Your task to perform on an android device: find snoozed emails in the gmail app Image 0: 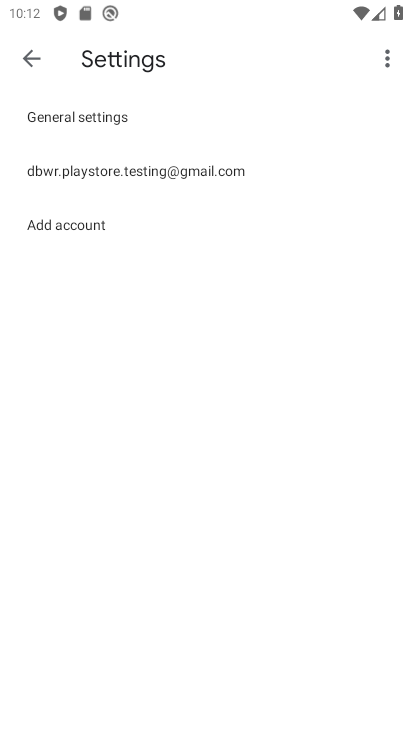
Step 0: press home button
Your task to perform on an android device: find snoozed emails in the gmail app Image 1: 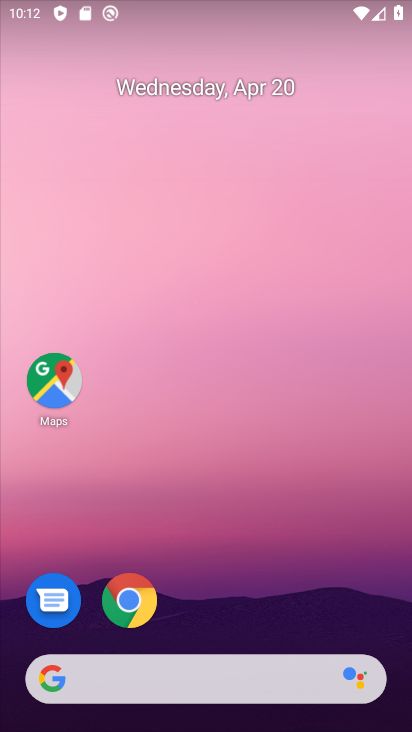
Step 1: drag from (269, 583) to (333, 94)
Your task to perform on an android device: find snoozed emails in the gmail app Image 2: 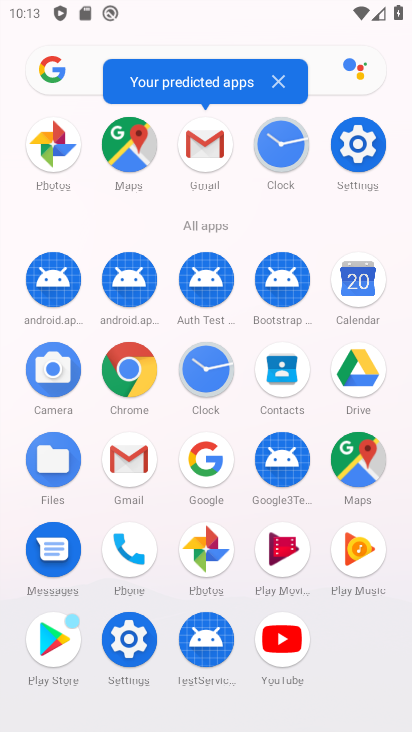
Step 2: click (205, 146)
Your task to perform on an android device: find snoozed emails in the gmail app Image 3: 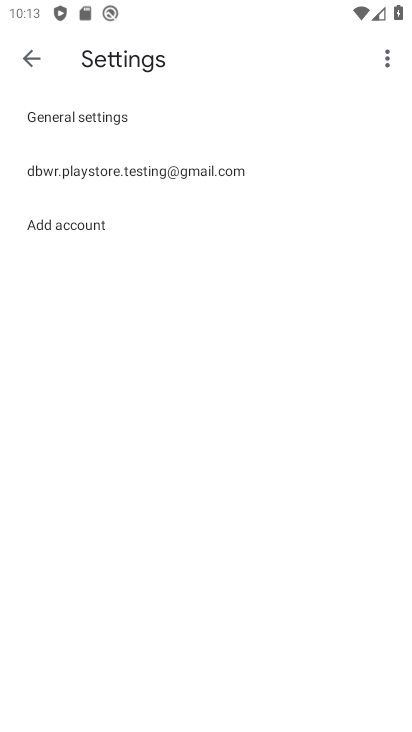
Step 3: click (34, 55)
Your task to perform on an android device: find snoozed emails in the gmail app Image 4: 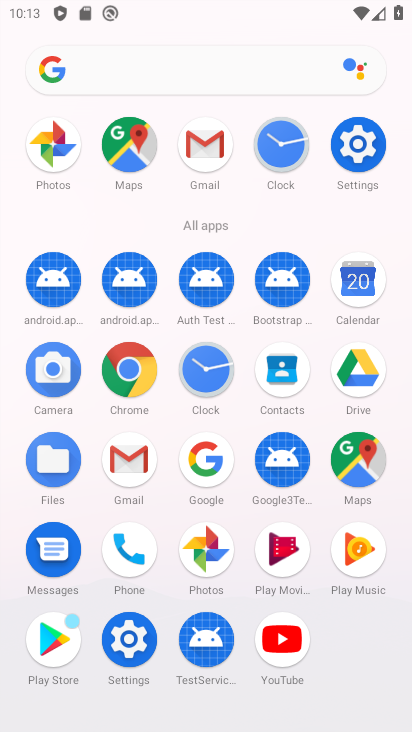
Step 4: click (201, 140)
Your task to perform on an android device: find snoozed emails in the gmail app Image 5: 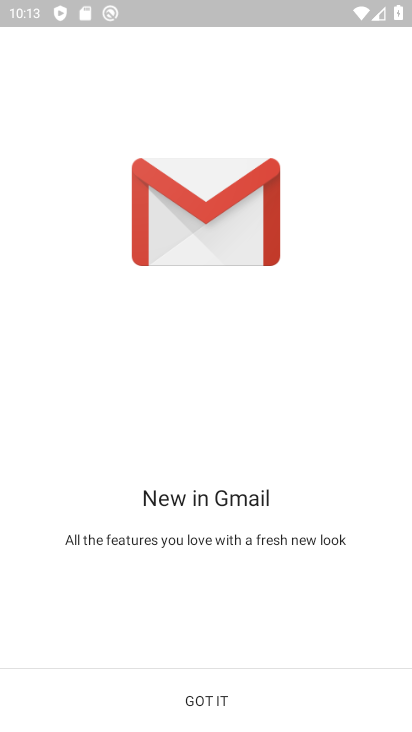
Step 5: click (218, 689)
Your task to perform on an android device: find snoozed emails in the gmail app Image 6: 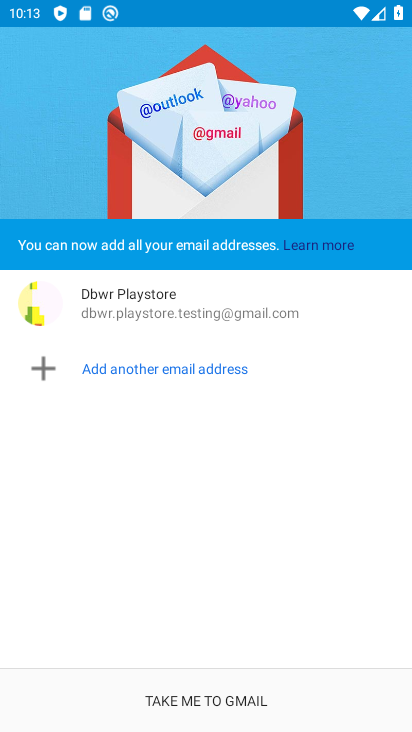
Step 6: click (218, 687)
Your task to perform on an android device: find snoozed emails in the gmail app Image 7: 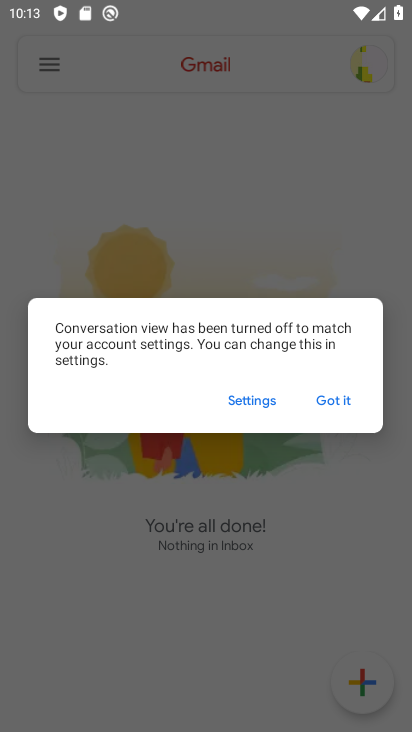
Step 7: click (341, 399)
Your task to perform on an android device: find snoozed emails in the gmail app Image 8: 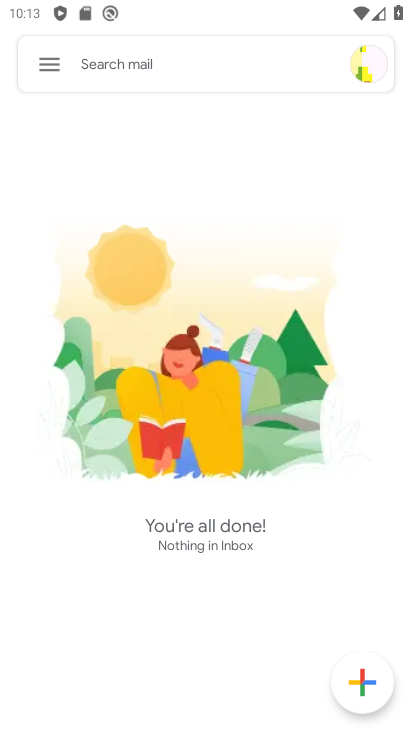
Step 8: click (52, 64)
Your task to perform on an android device: find snoozed emails in the gmail app Image 9: 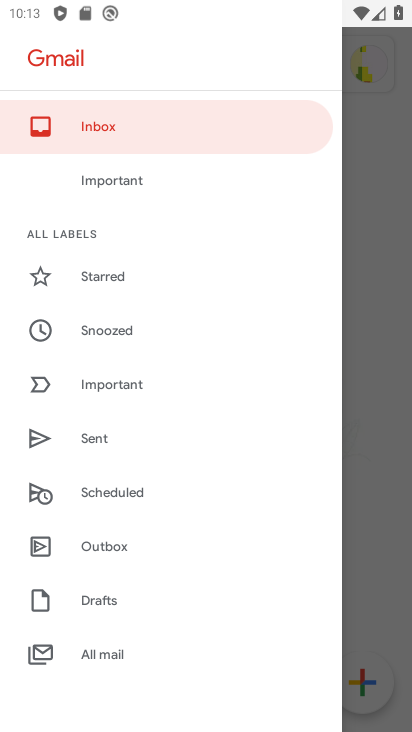
Step 9: click (86, 326)
Your task to perform on an android device: find snoozed emails in the gmail app Image 10: 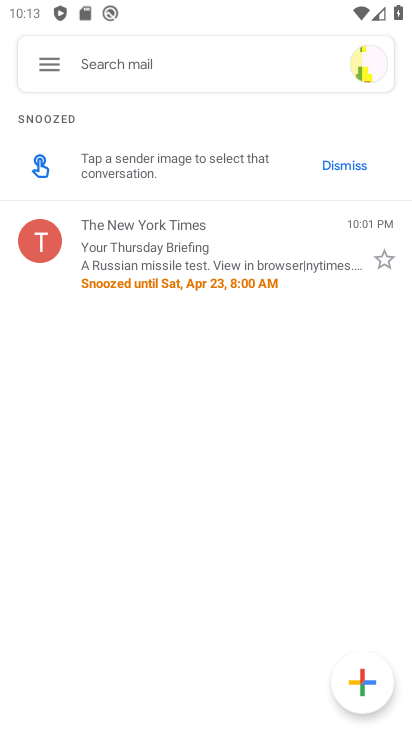
Step 10: task complete